Your task to perform on an android device: turn smart compose on in the gmail app Image 0: 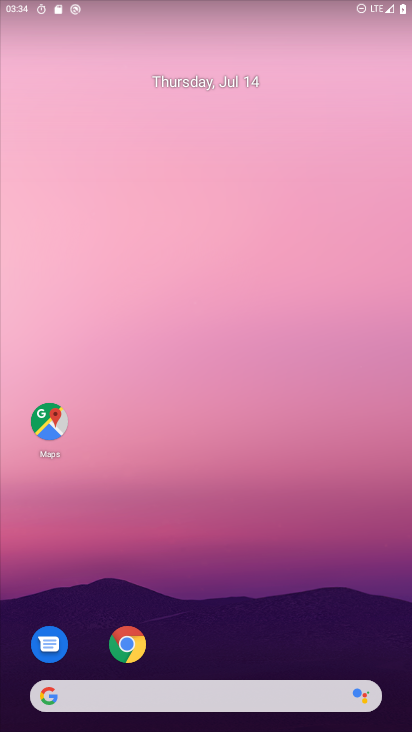
Step 0: drag from (263, 635) to (243, 103)
Your task to perform on an android device: turn smart compose on in the gmail app Image 1: 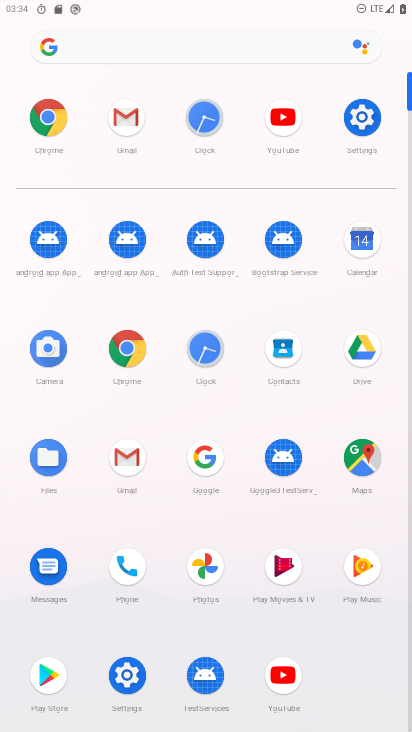
Step 1: click (137, 115)
Your task to perform on an android device: turn smart compose on in the gmail app Image 2: 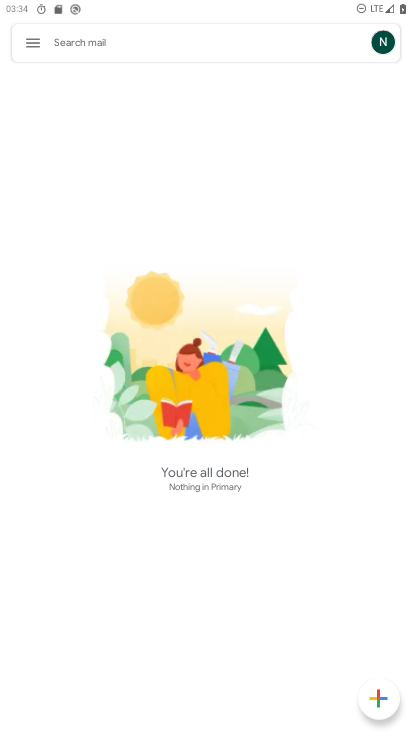
Step 2: click (28, 34)
Your task to perform on an android device: turn smart compose on in the gmail app Image 3: 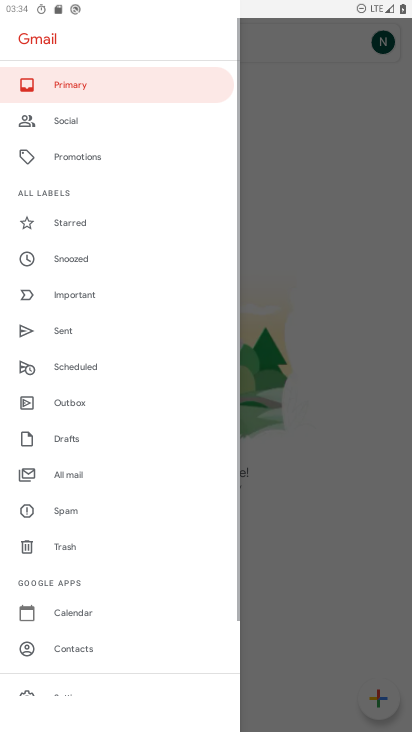
Step 3: drag from (82, 655) to (172, 132)
Your task to perform on an android device: turn smart compose on in the gmail app Image 4: 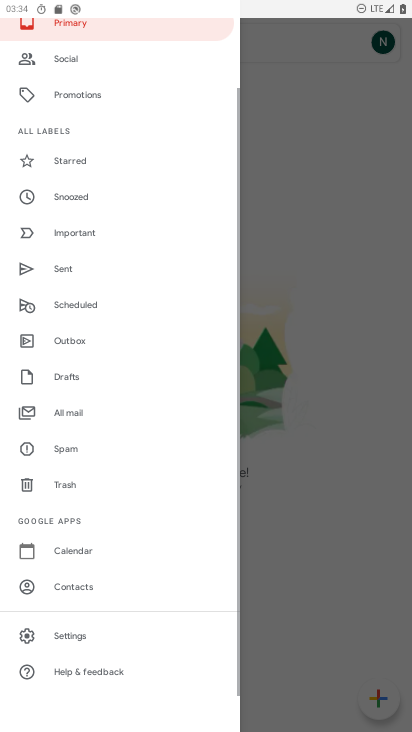
Step 4: click (74, 639)
Your task to perform on an android device: turn smart compose on in the gmail app Image 5: 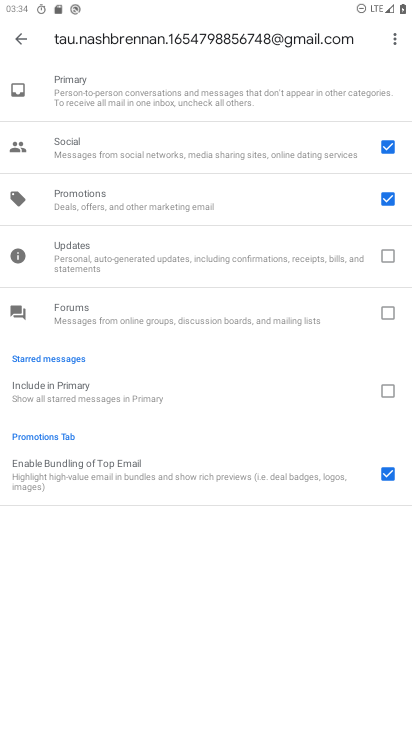
Step 5: click (17, 37)
Your task to perform on an android device: turn smart compose on in the gmail app Image 6: 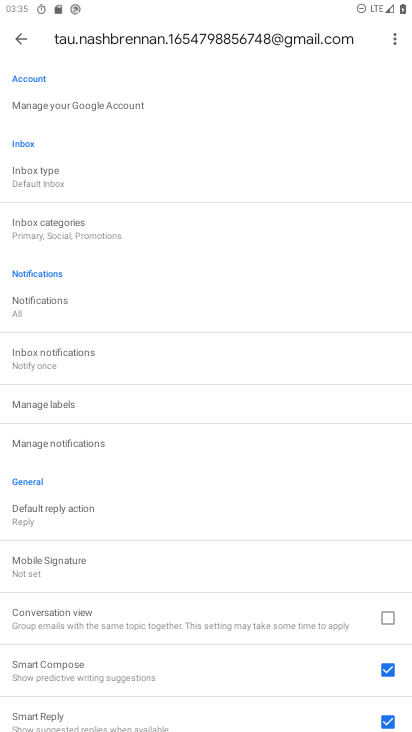
Step 6: task complete